Your task to perform on an android device: Open eBay Image 0: 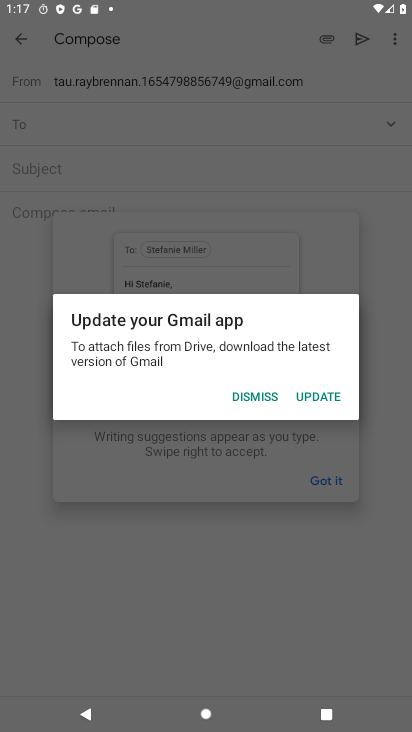
Step 0: press home button
Your task to perform on an android device: Open eBay Image 1: 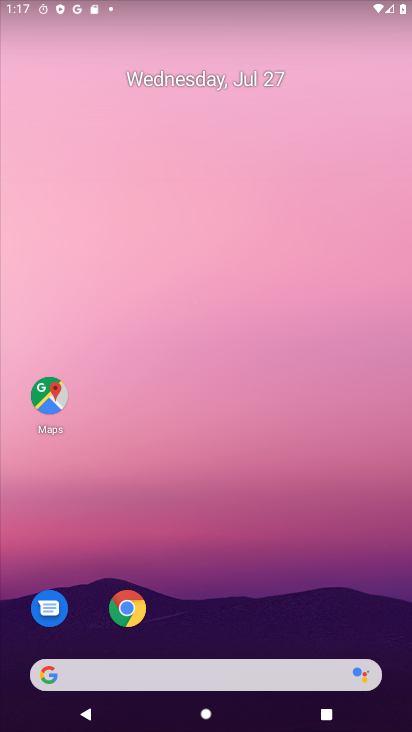
Step 1: click (135, 601)
Your task to perform on an android device: Open eBay Image 2: 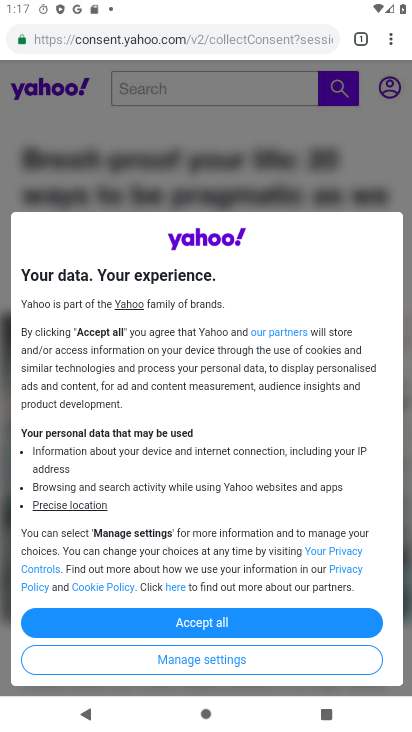
Step 2: click (179, 34)
Your task to perform on an android device: Open eBay Image 3: 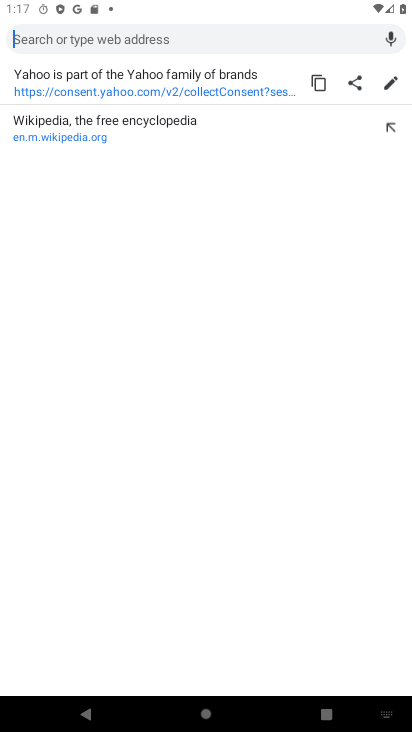
Step 3: type "www.ebay.com"
Your task to perform on an android device: Open eBay Image 4: 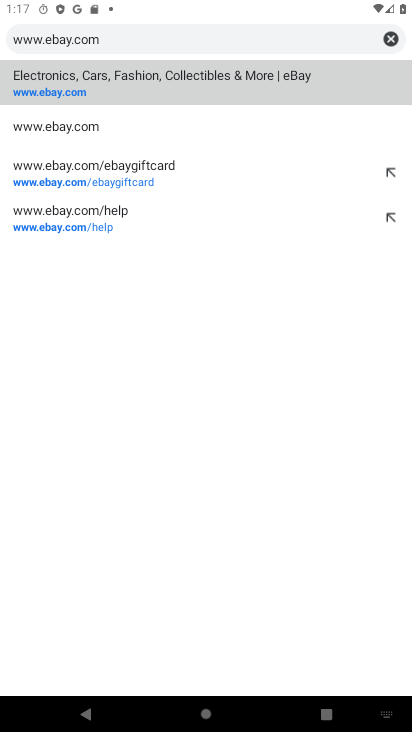
Step 4: click (56, 88)
Your task to perform on an android device: Open eBay Image 5: 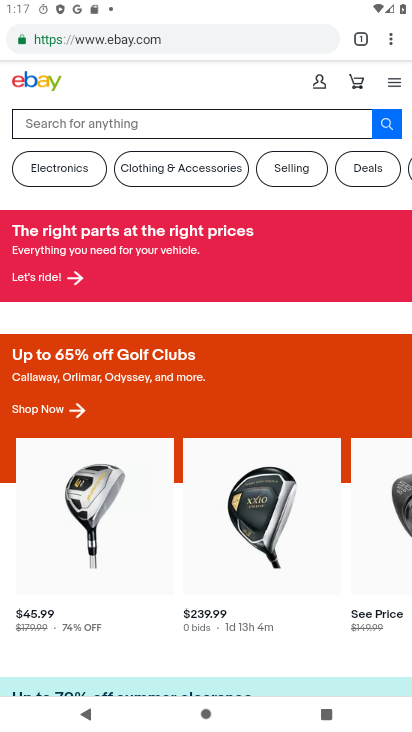
Step 5: task complete